Your task to perform on an android device: Go to wifi settings Image 0: 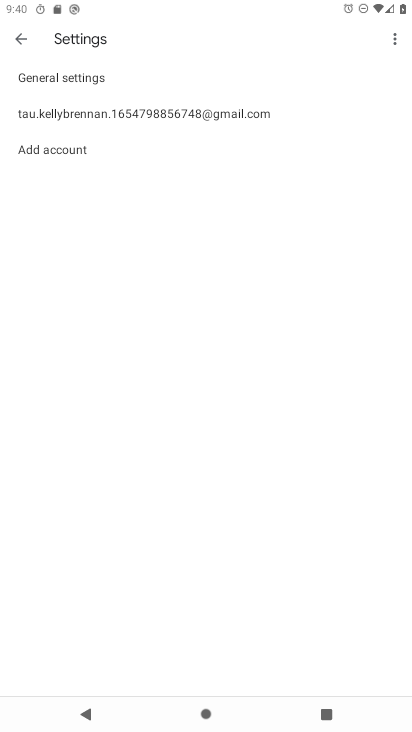
Step 0: drag from (245, 356) to (261, 653)
Your task to perform on an android device: Go to wifi settings Image 1: 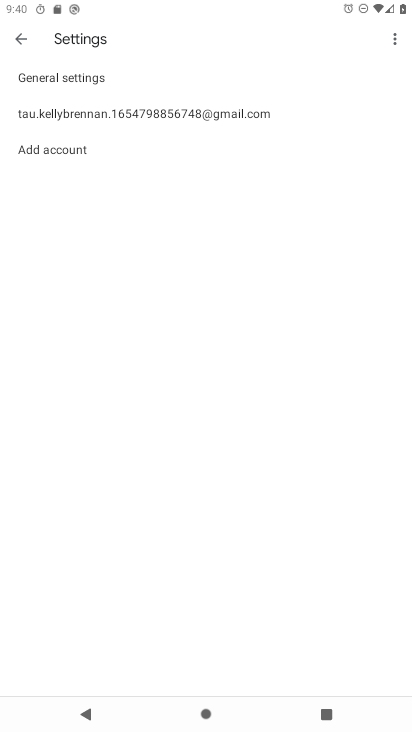
Step 1: drag from (145, 12) to (172, 556)
Your task to perform on an android device: Go to wifi settings Image 2: 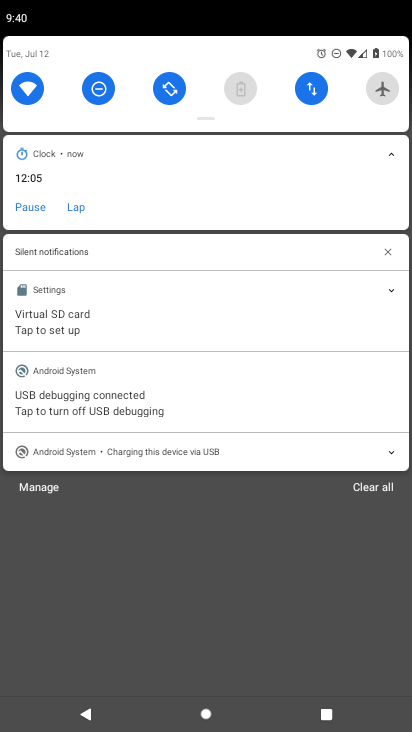
Step 2: click (26, 83)
Your task to perform on an android device: Go to wifi settings Image 3: 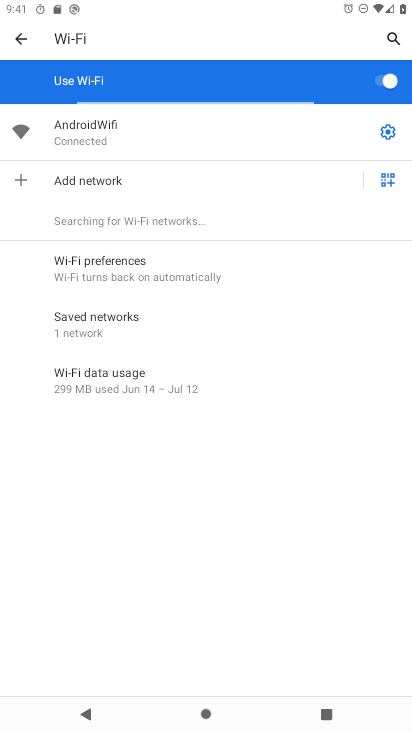
Step 3: task complete